Your task to perform on an android device: turn on wifi Image 0: 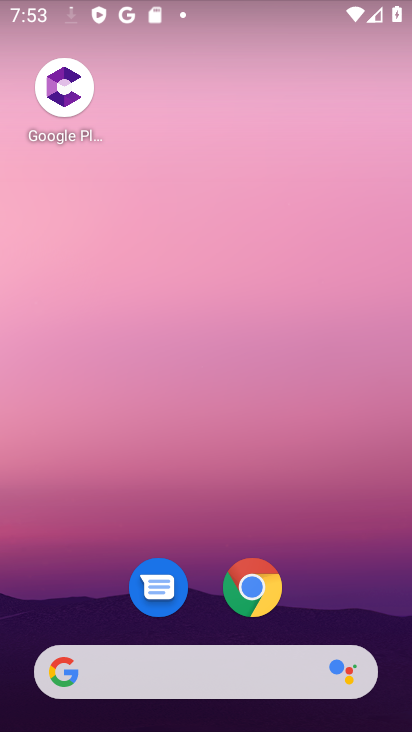
Step 0: drag from (105, 40) to (184, 484)
Your task to perform on an android device: turn on wifi Image 1: 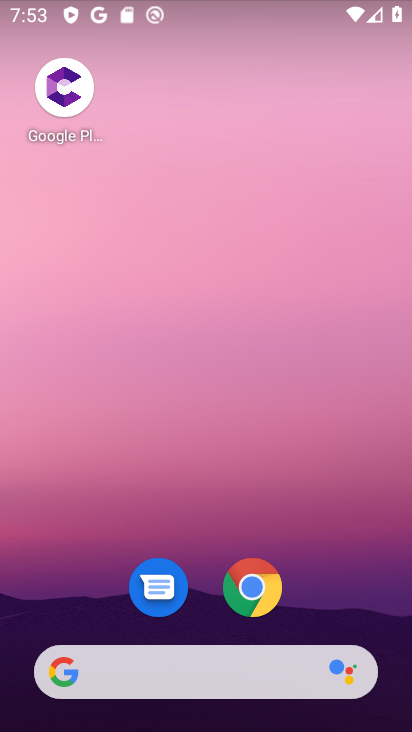
Step 1: task complete